Your task to perform on an android device: Check the news Image 0: 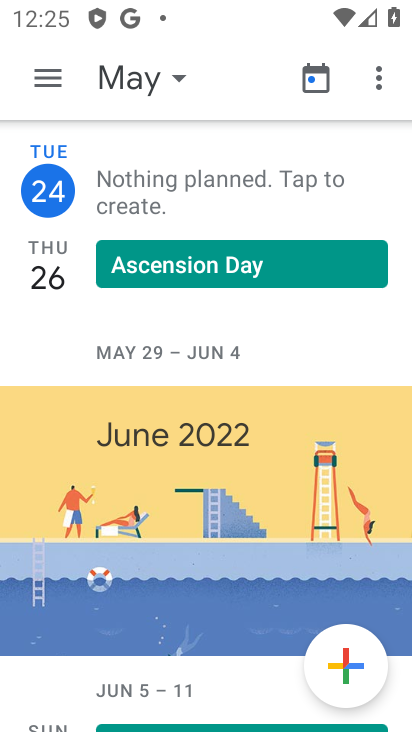
Step 0: press home button
Your task to perform on an android device: Check the news Image 1: 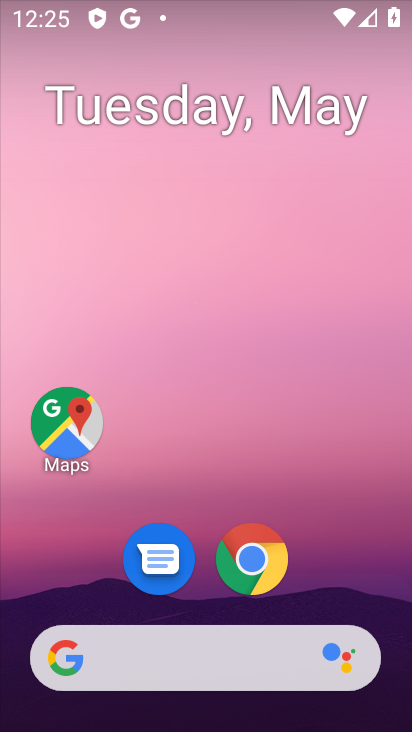
Step 1: click (187, 659)
Your task to perform on an android device: Check the news Image 2: 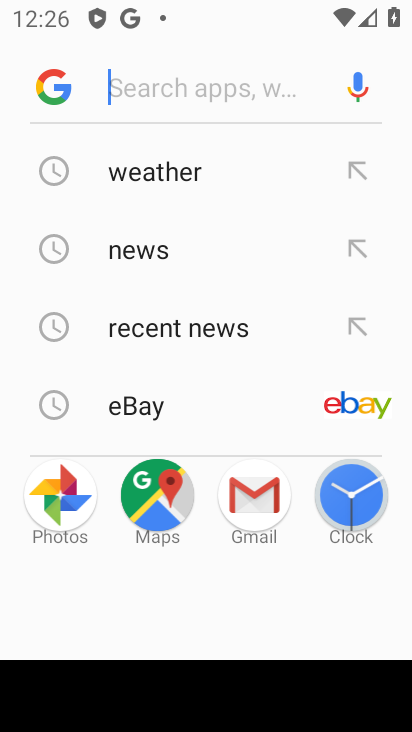
Step 2: click (163, 260)
Your task to perform on an android device: Check the news Image 3: 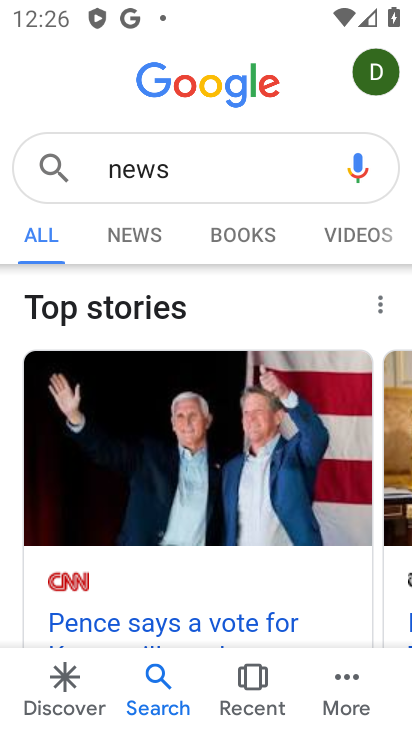
Step 3: task complete